Your task to perform on an android device: turn off smart reply in the gmail app Image 0: 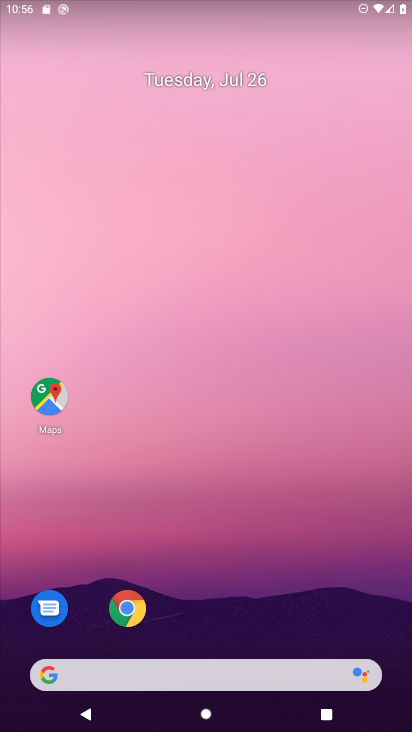
Step 0: drag from (265, 528) to (157, 77)
Your task to perform on an android device: turn off smart reply in the gmail app Image 1: 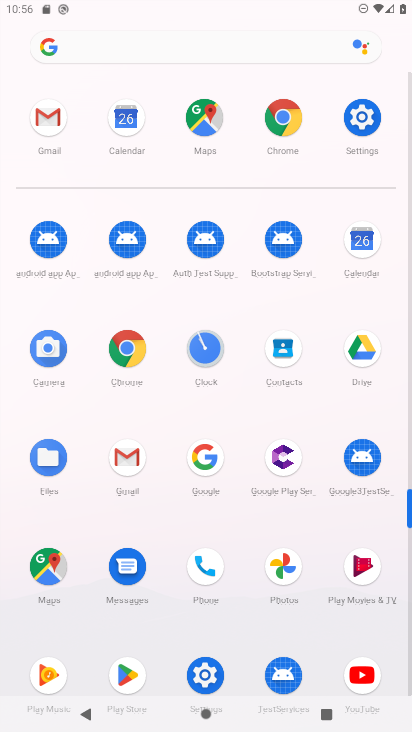
Step 1: click (132, 455)
Your task to perform on an android device: turn off smart reply in the gmail app Image 2: 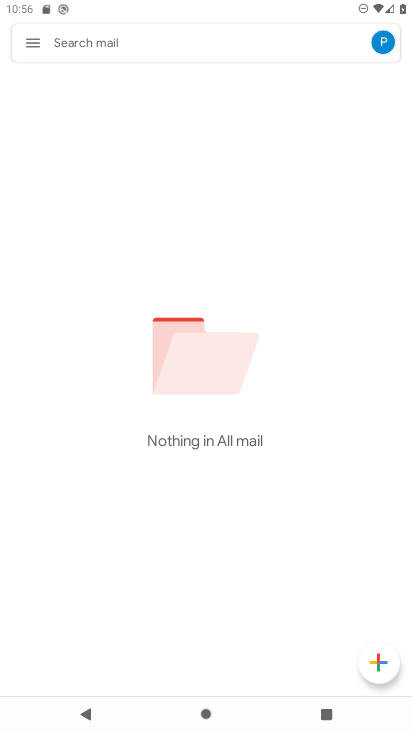
Step 2: click (34, 39)
Your task to perform on an android device: turn off smart reply in the gmail app Image 3: 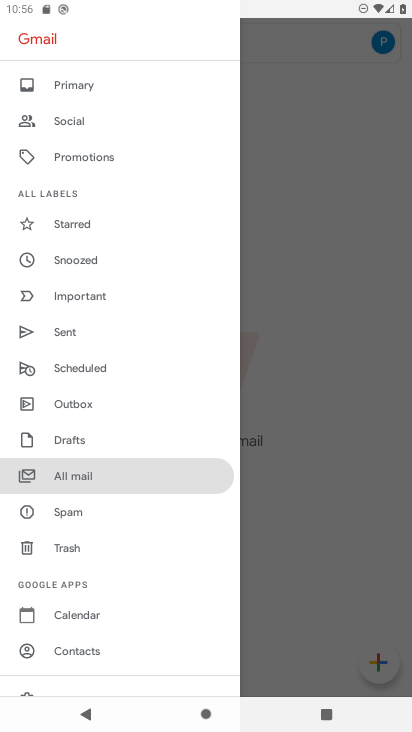
Step 3: drag from (75, 642) to (126, 222)
Your task to perform on an android device: turn off smart reply in the gmail app Image 4: 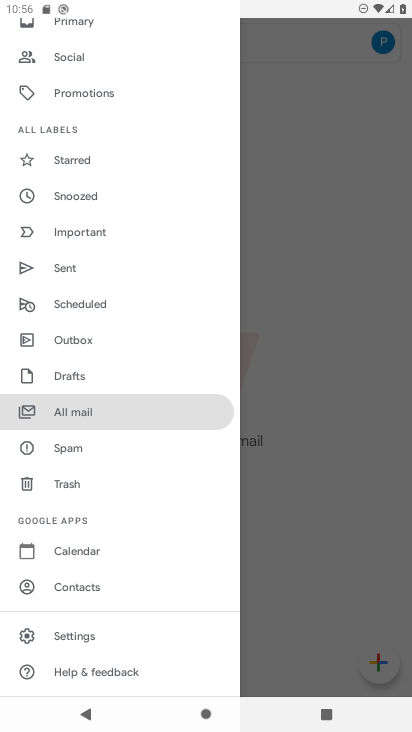
Step 4: click (84, 637)
Your task to perform on an android device: turn off smart reply in the gmail app Image 5: 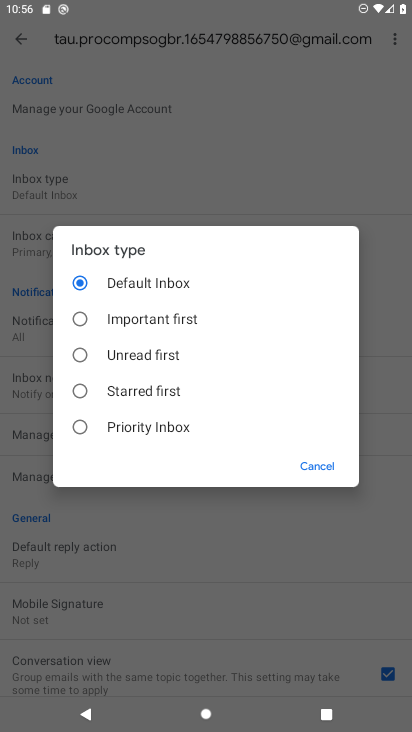
Step 5: click (327, 467)
Your task to perform on an android device: turn off smart reply in the gmail app Image 6: 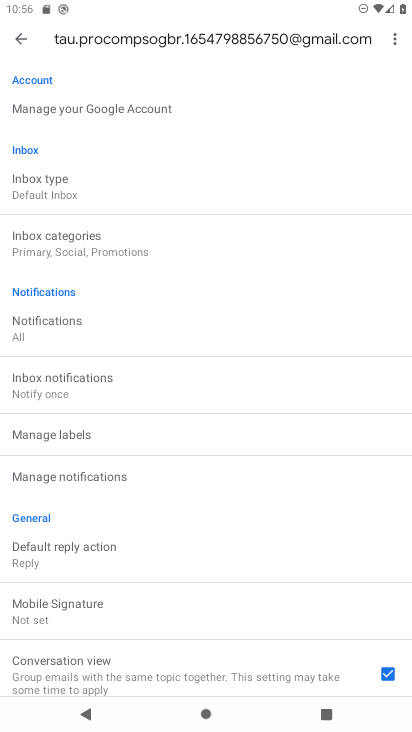
Step 6: drag from (308, 536) to (360, 155)
Your task to perform on an android device: turn off smart reply in the gmail app Image 7: 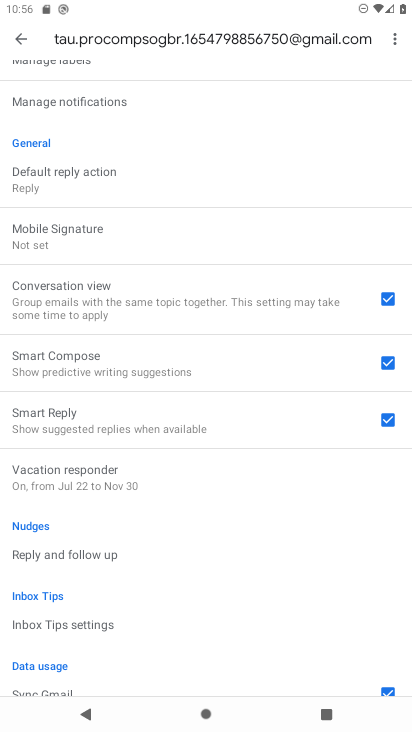
Step 7: click (389, 423)
Your task to perform on an android device: turn off smart reply in the gmail app Image 8: 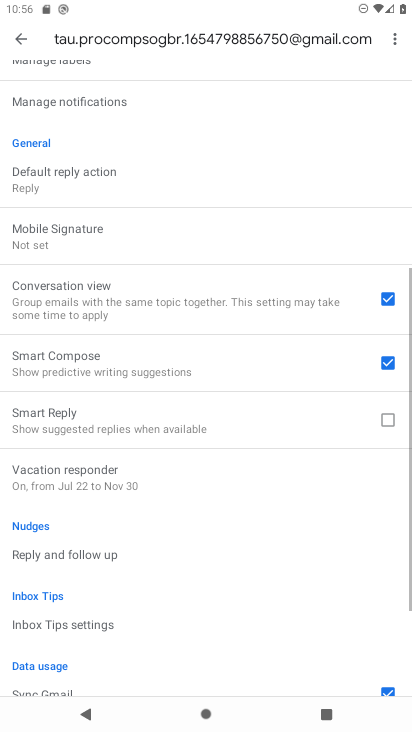
Step 8: task complete